Your task to perform on an android device: open a new tab in the chrome app Image 0: 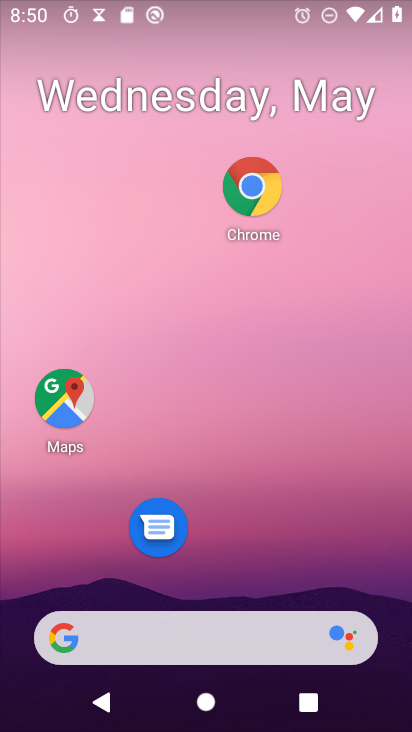
Step 0: click (236, 184)
Your task to perform on an android device: open a new tab in the chrome app Image 1: 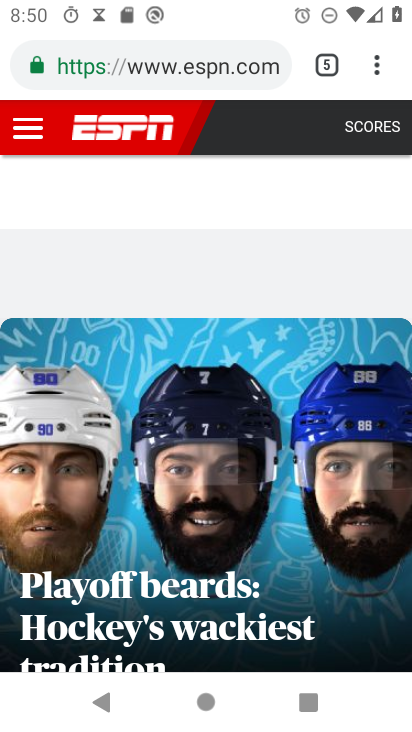
Step 1: task complete